Your task to perform on an android device: Turn off the flashlight Image 0: 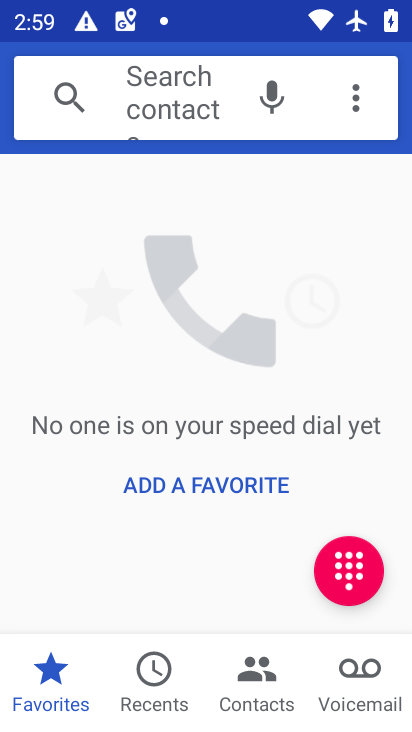
Step 0: drag from (238, 574) to (221, 58)
Your task to perform on an android device: Turn off the flashlight Image 1: 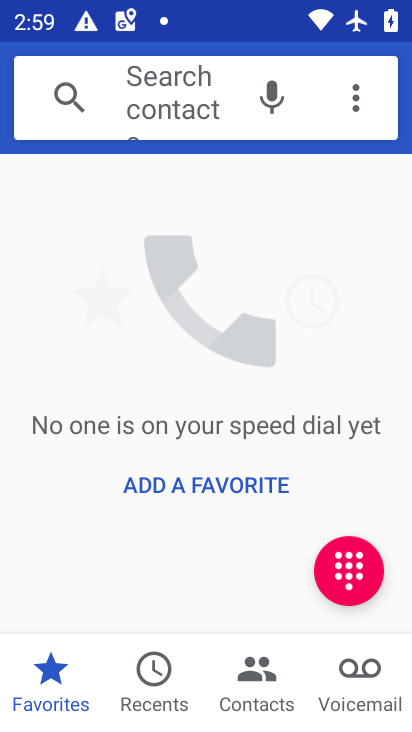
Step 1: press home button
Your task to perform on an android device: Turn off the flashlight Image 2: 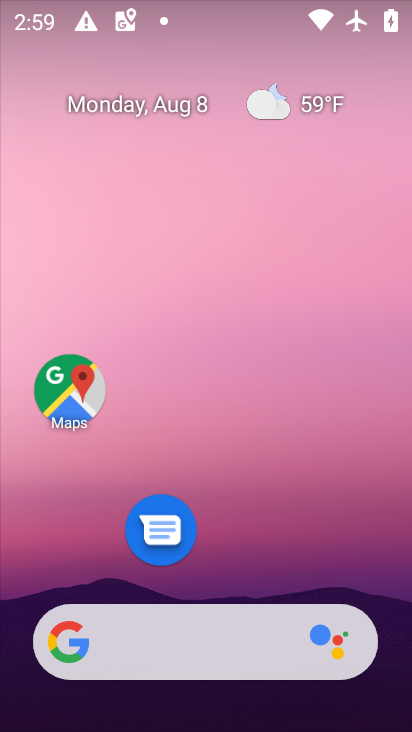
Step 2: drag from (243, 583) to (232, 73)
Your task to perform on an android device: Turn off the flashlight Image 3: 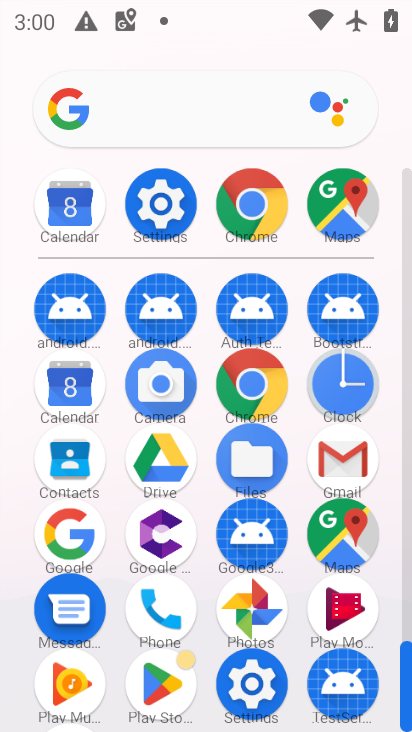
Step 3: click (141, 200)
Your task to perform on an android device: Turn off the flashlight Image 4: 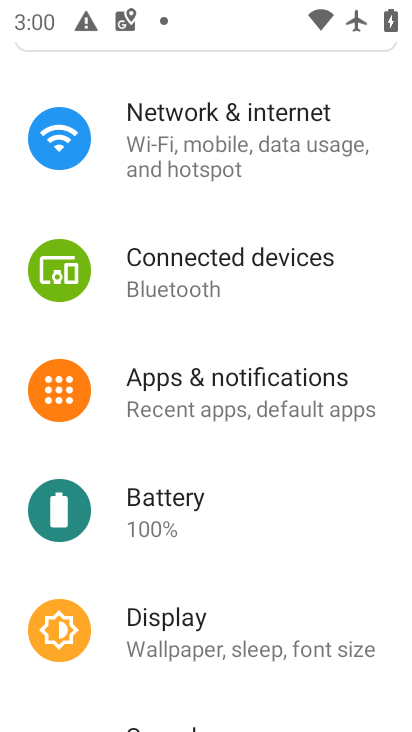
Step 4: task complete